Your task to perform on an android device: What's on the menu at Red Lobster? Image 0: 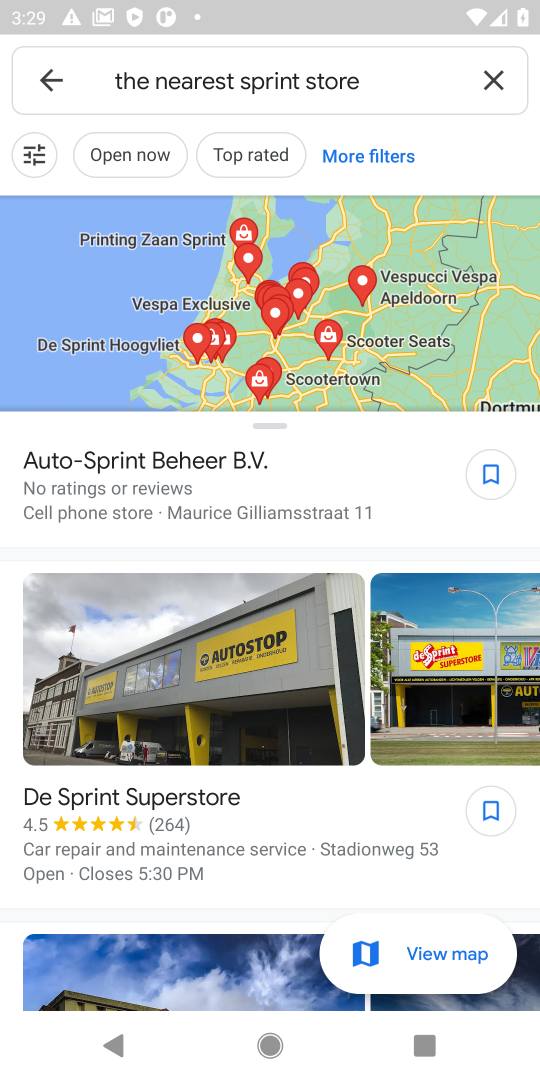
Step 0: press home button
Your task to perform on an android device: What's on the menu at Red Lobster? Image 1: 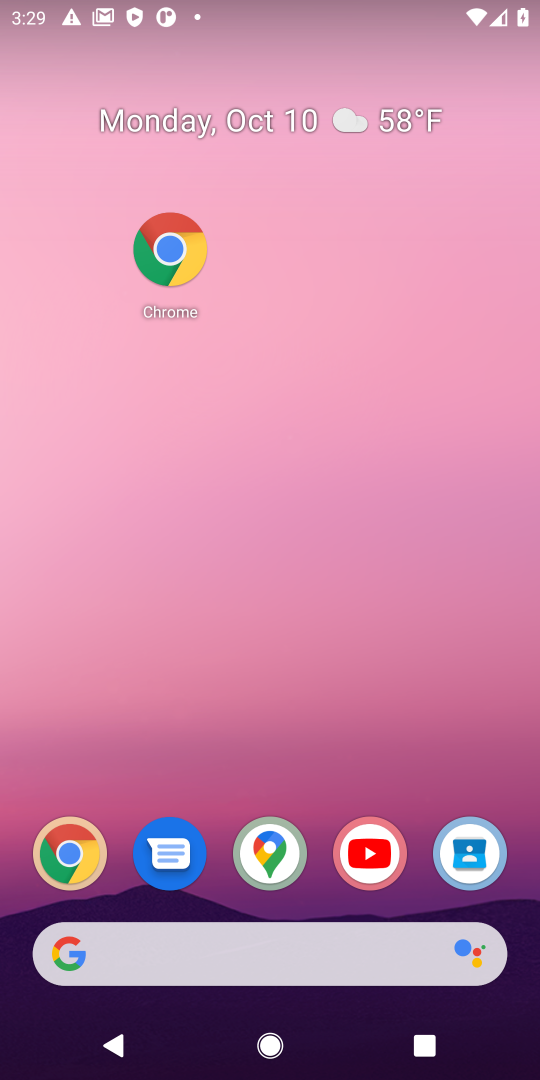
Step 1: click (172, 252)
Your task to perform on an android device: What's on the menu at Red Lobster? Image 2: 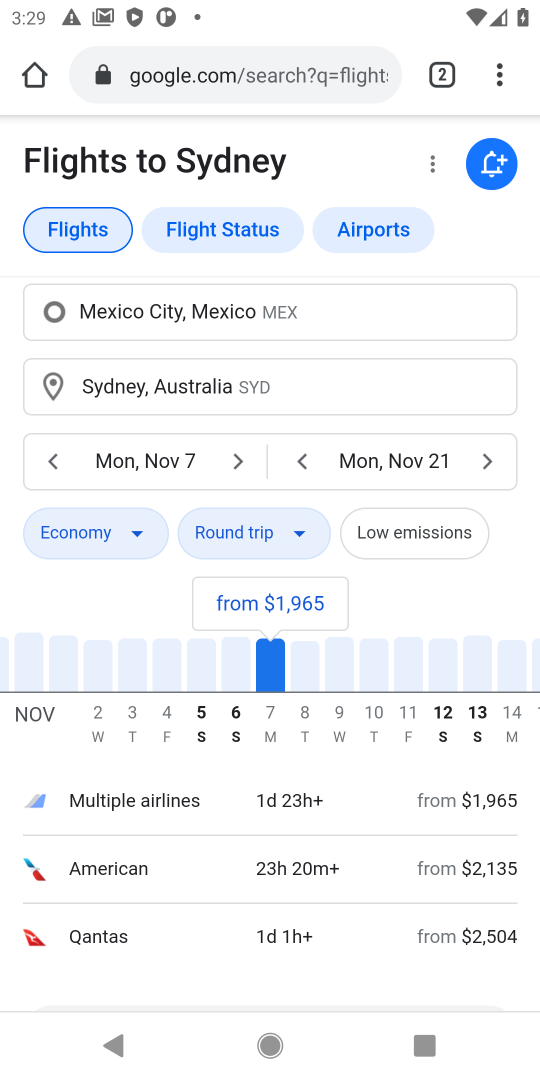
Step 2: click (221, 74)
Your task to perform on an android device: What's on the menu at Red Lobster? Image 3: 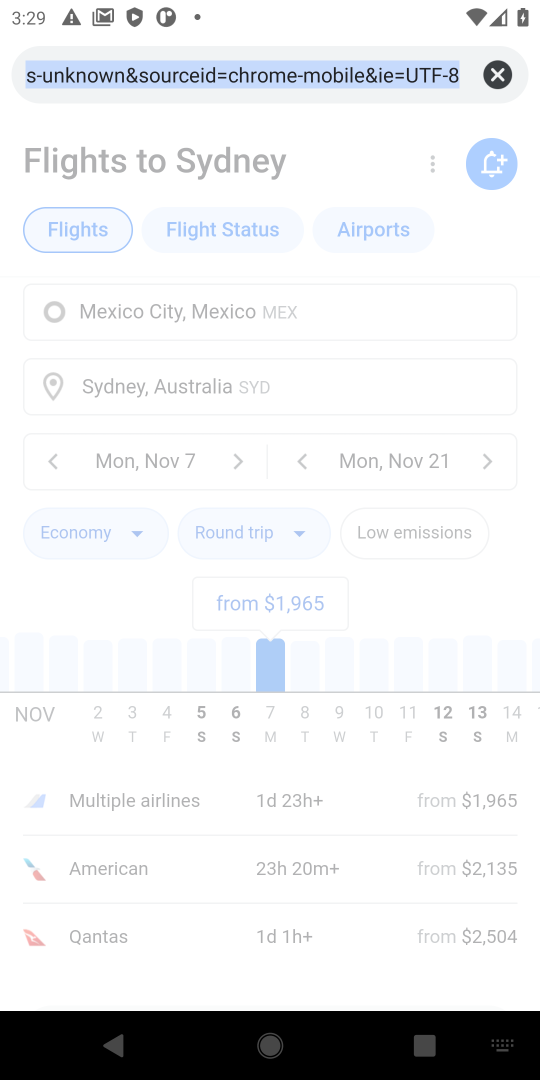
Step 3: type "What's on the menu at Red Lobster?"
Your task to perform on an android device: What's on the menu at Red Lobster? Image 4: 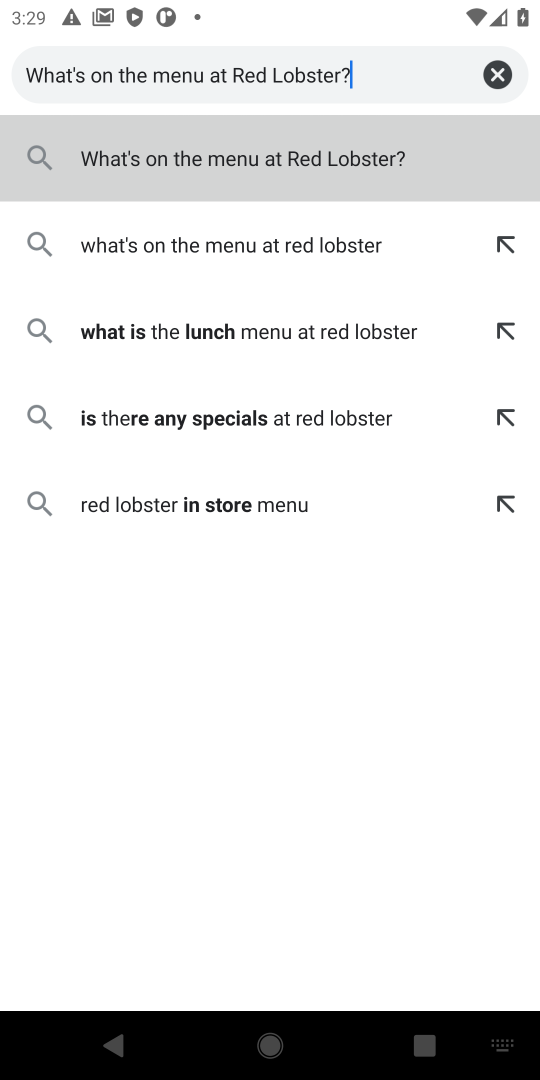
Step 4: click (293, 164)
Your task to perform on an android device: What's on the menu at Red Lobster? Image 5: 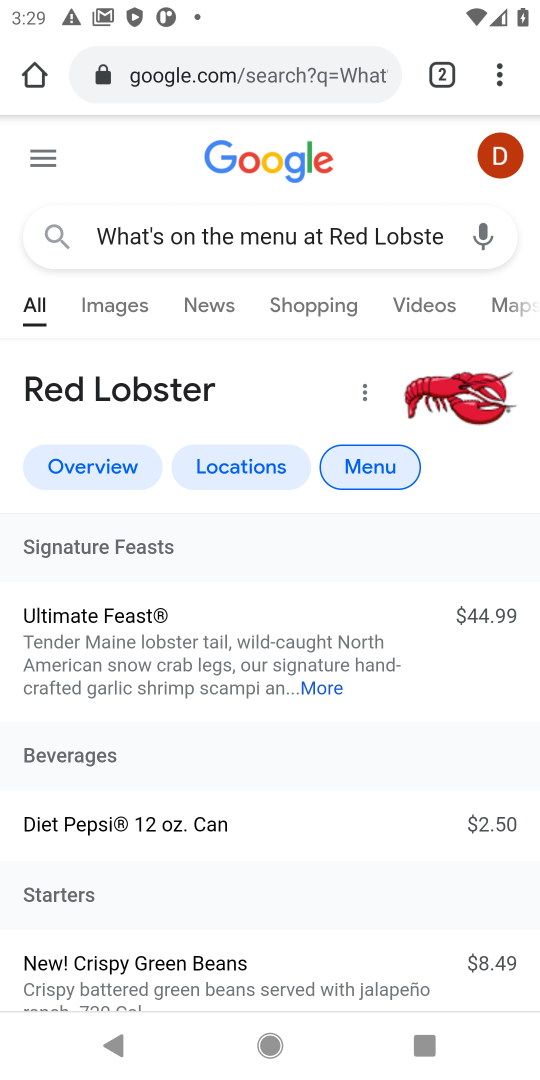
Step 5: task complete